Your task to perform on an android device: turn on the 12-hour format for clock Image 0: 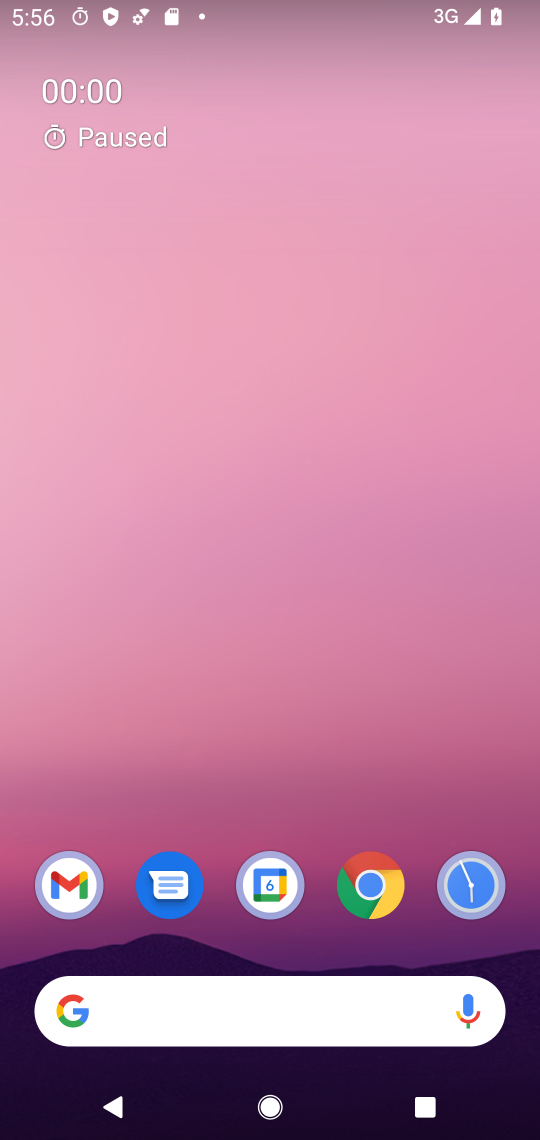
Step 0: drag from (459, 951) to (187, 110)
Your task to perform on an android device: turn on the 12-hour format for clock Image 1: 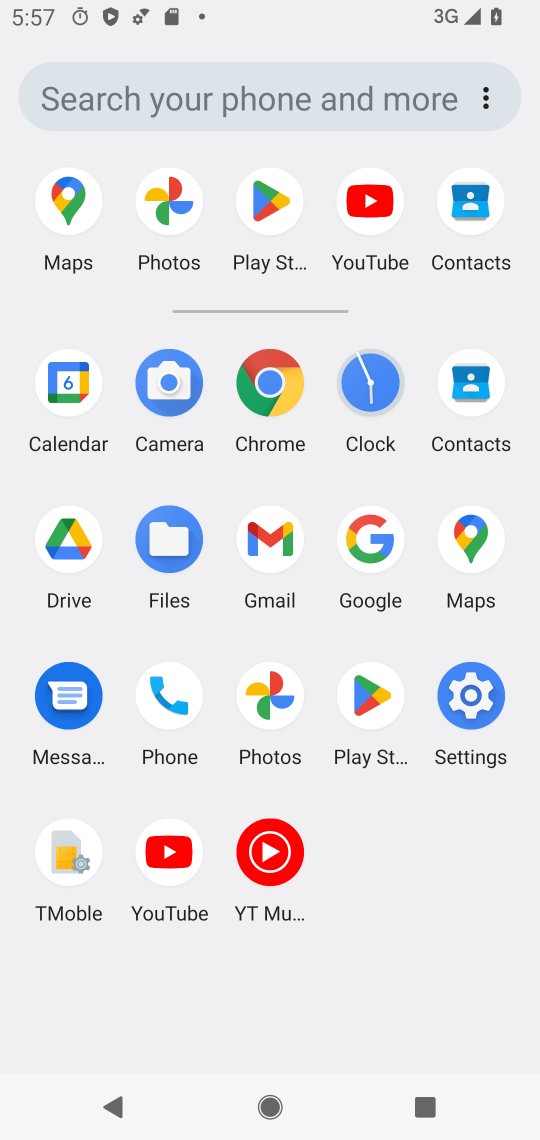
Step 1: click (372, 391)
Your task to perform on an android device: turn on the 12-hour format for clock Image 2: 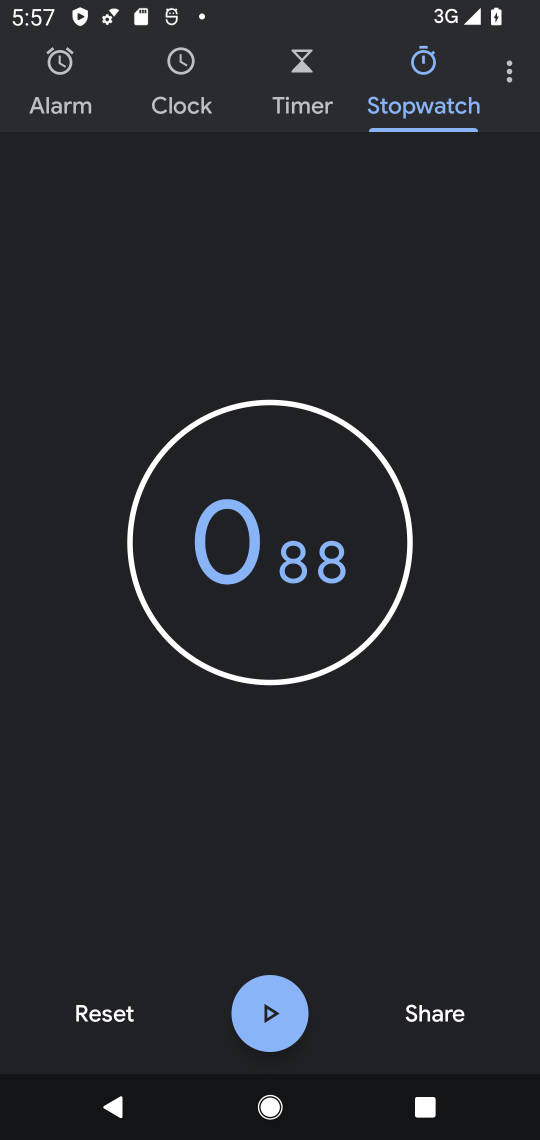
Step 2: click (514, 61)
Your task to perform on an android device: turn on the 12-hour format for clock Image 3: 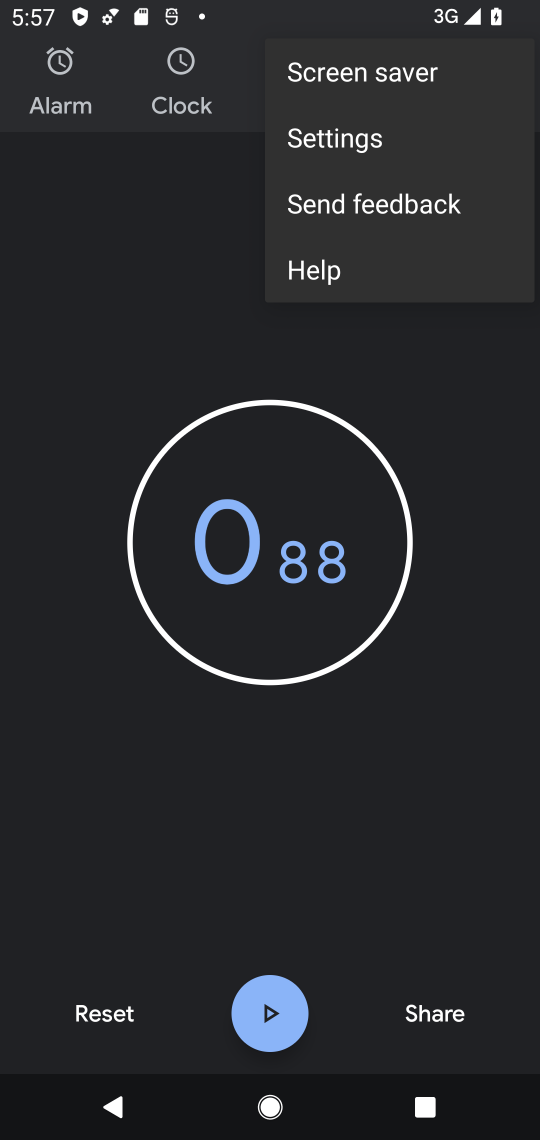
Step 3: click (359, 144)
Your task to perform on an android device: turn on the 12-hour format for clock Image 4: 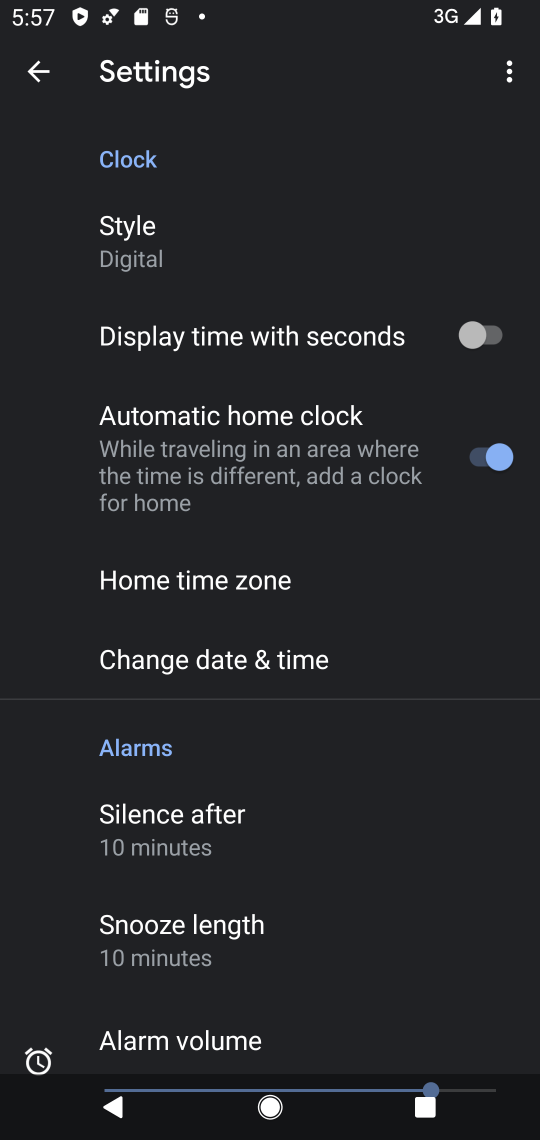
Step 4: click (247, 649)
Your task to perform on an android device: turn on the 12-hour format for clock Image 5: 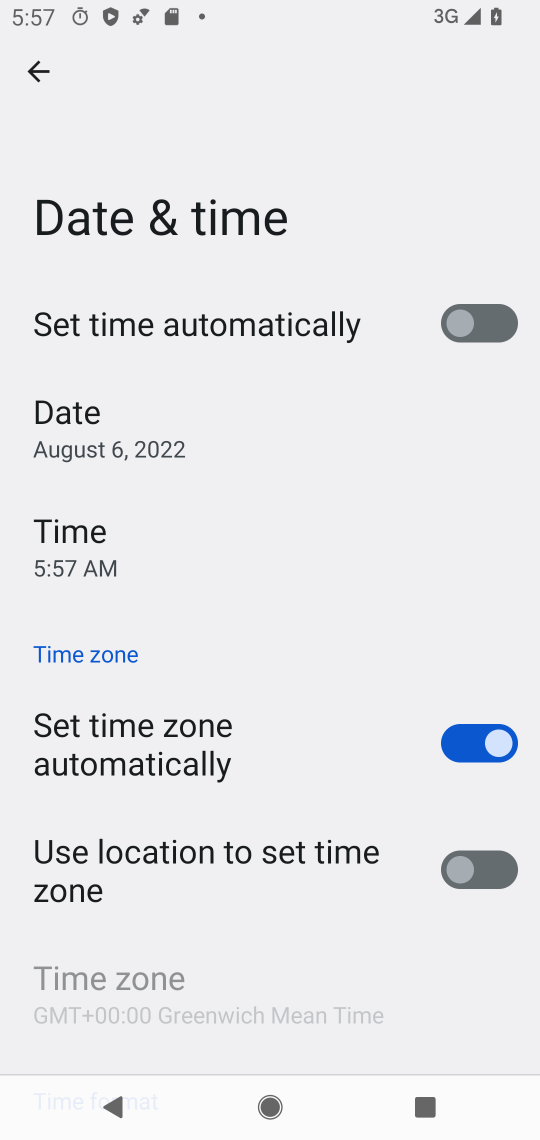
Step 5: task complete